Your task to perform on an android device: toggle sleep mode Image 0: 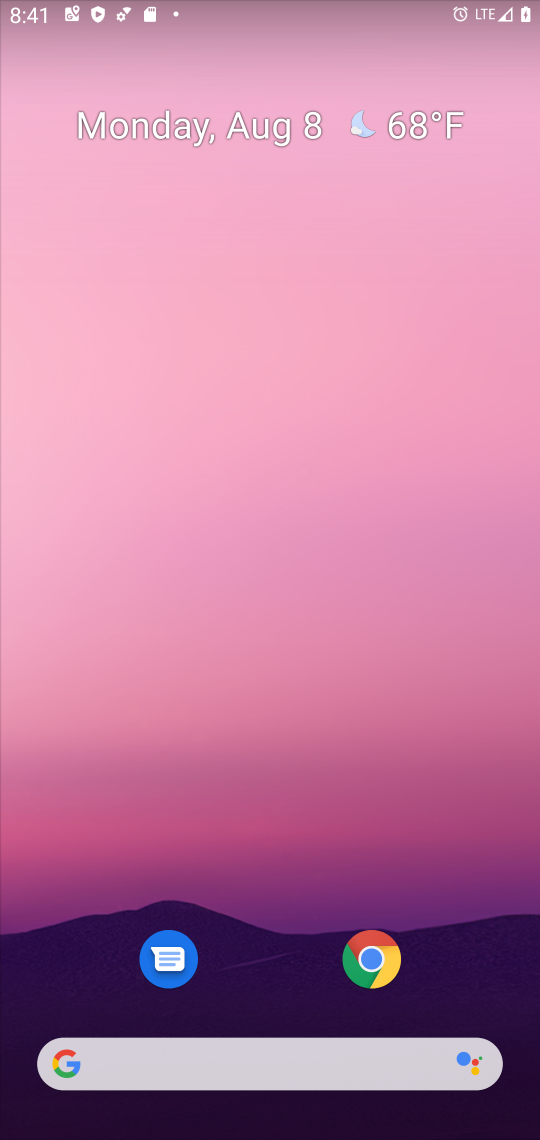
Step 0: drag from (492, 969) to (224, 0)
Your task to perform on an android device: toggle sleep mode Image 1: 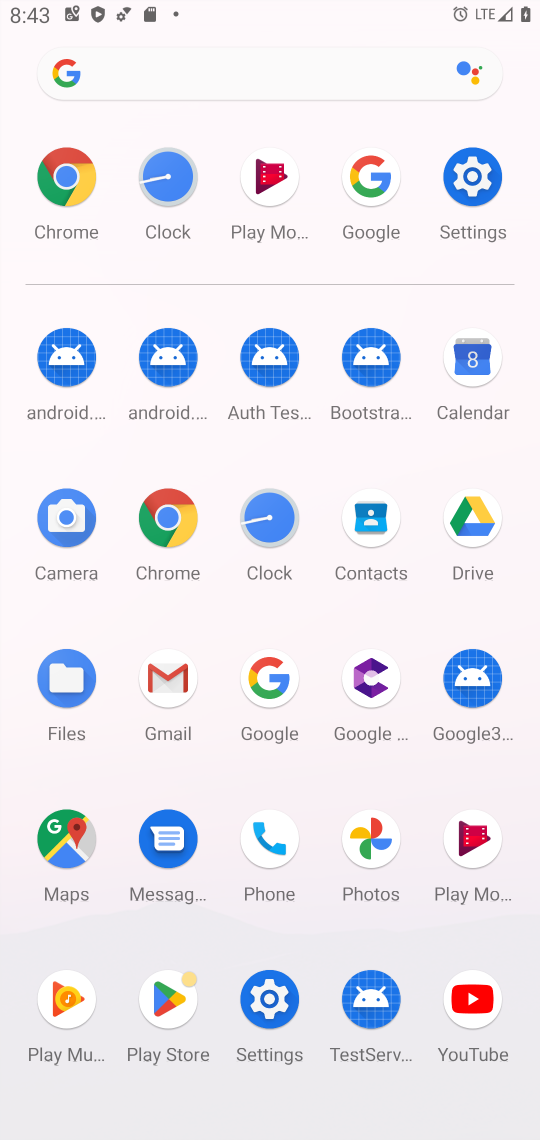
Step 1: click (279, 995)
Your task to perform on an android device: toggle sleep mode Image 2: 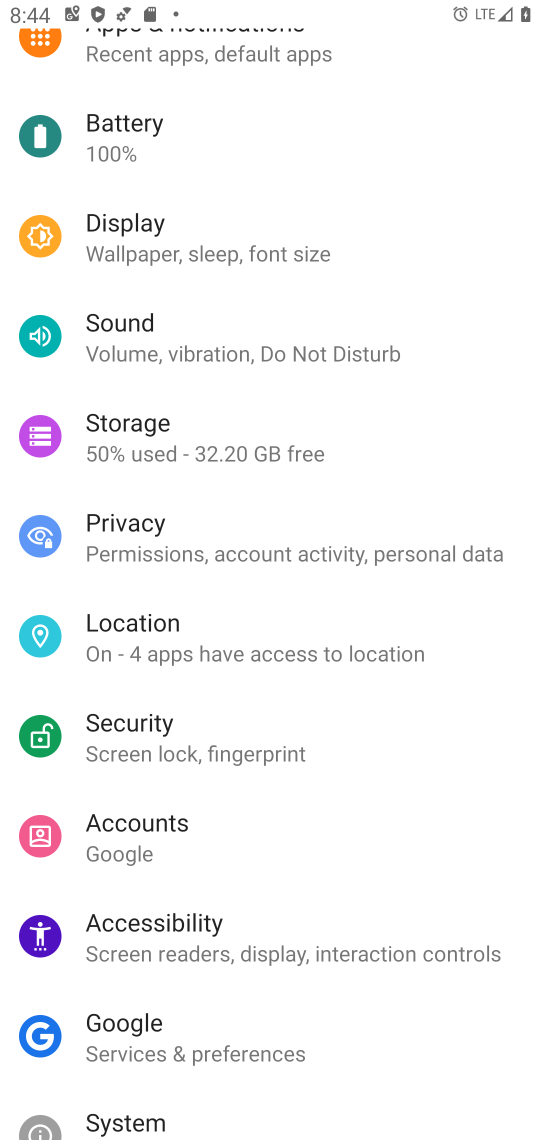
Step 2: task complete